Your task to perform on an android device: Open Android settings Image 0: 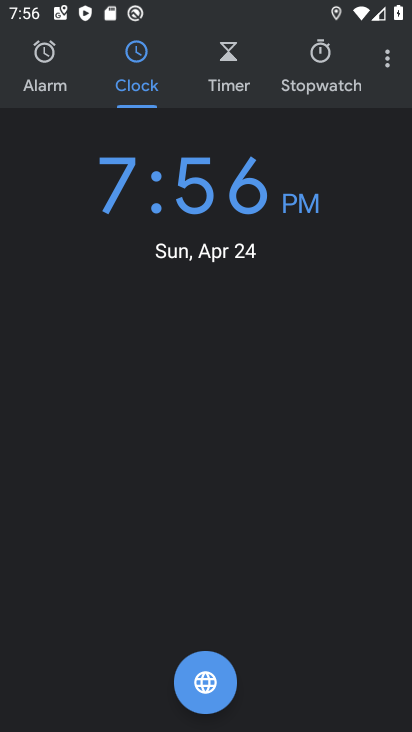
Step 0: press home button
Your task to perform on an android device: Open Android settings Image 1: 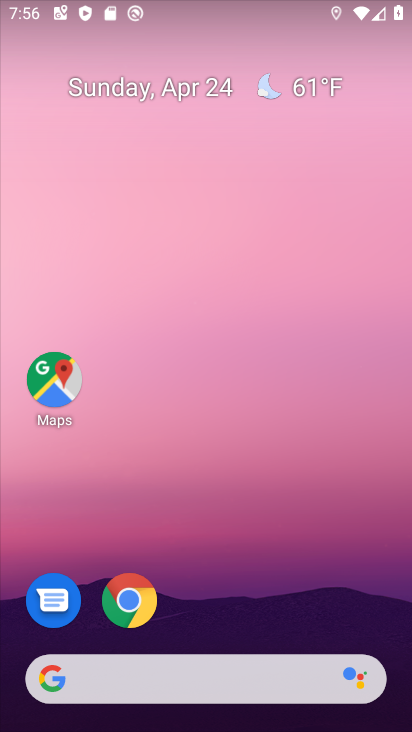
Step 1: drag from (218, 714) to (218, 153)
Your task to perform on an android device: Open Android settings Image 2: 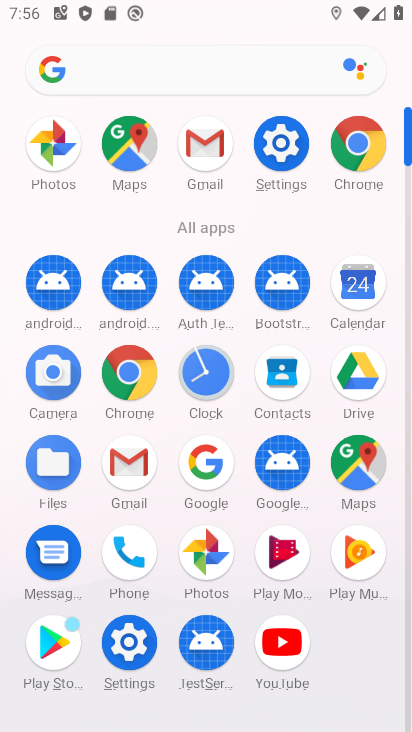
Step 2: click (278, 148)
Your task to perform on an android device: Open Android settings Image 3: 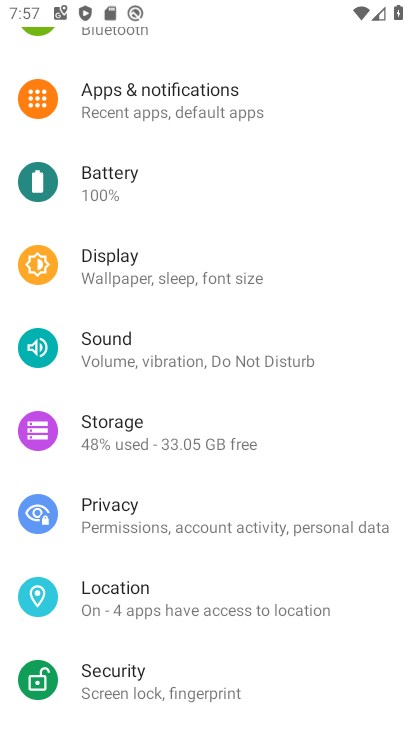
Step 3: task complete